Your task to perform on an android device: read, delete, or share a saved page in the chrome app Image 0: 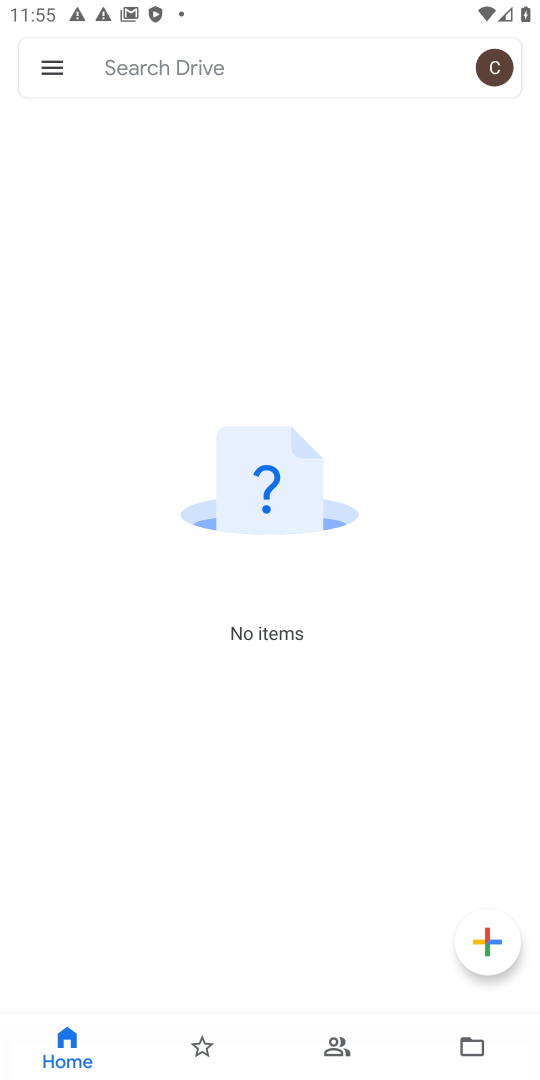
Step 0: press home button
Your task to perform on an android device: read, delete, or share a saved page in the chrome app Image 1: 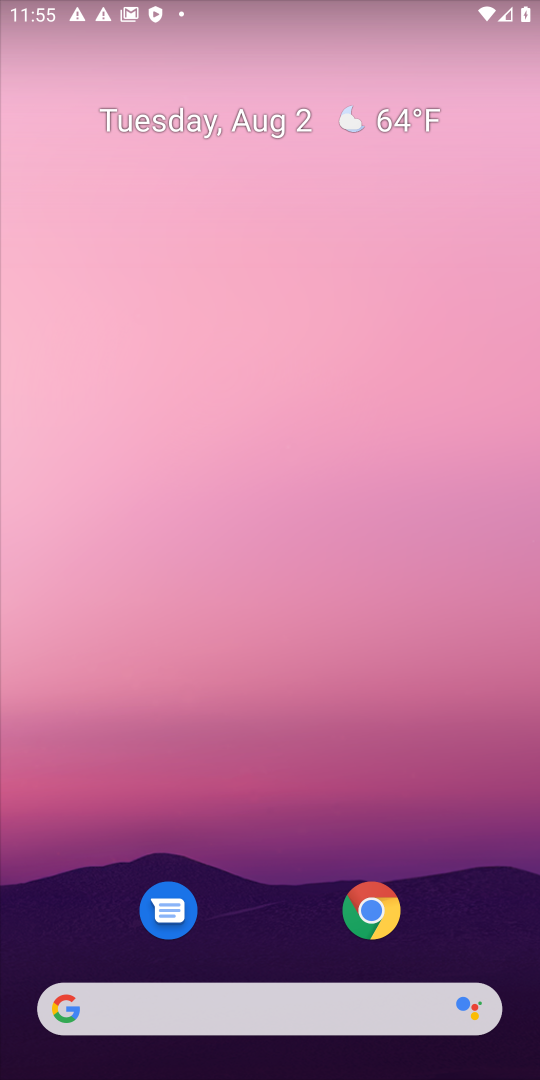
Step 1: click (372, 914)
Your task to perform on an android device: read, delete, or share a saved page in the chrome app Image 2: 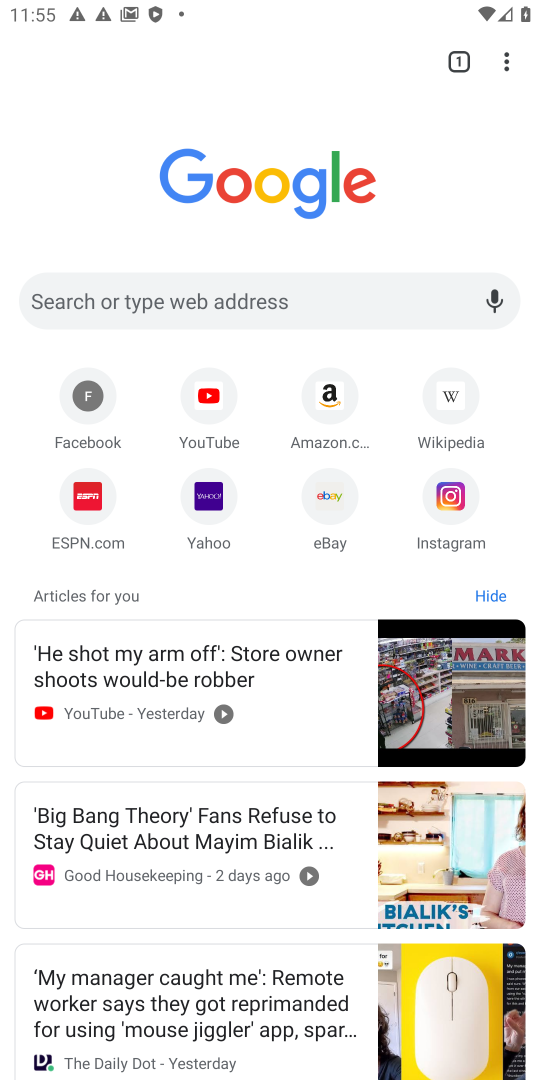
Step 2: drag from (508, 64) to (320, 403)
Your task to perform on an android device: read, delete, or share a saved page in the chrome app Image 3: 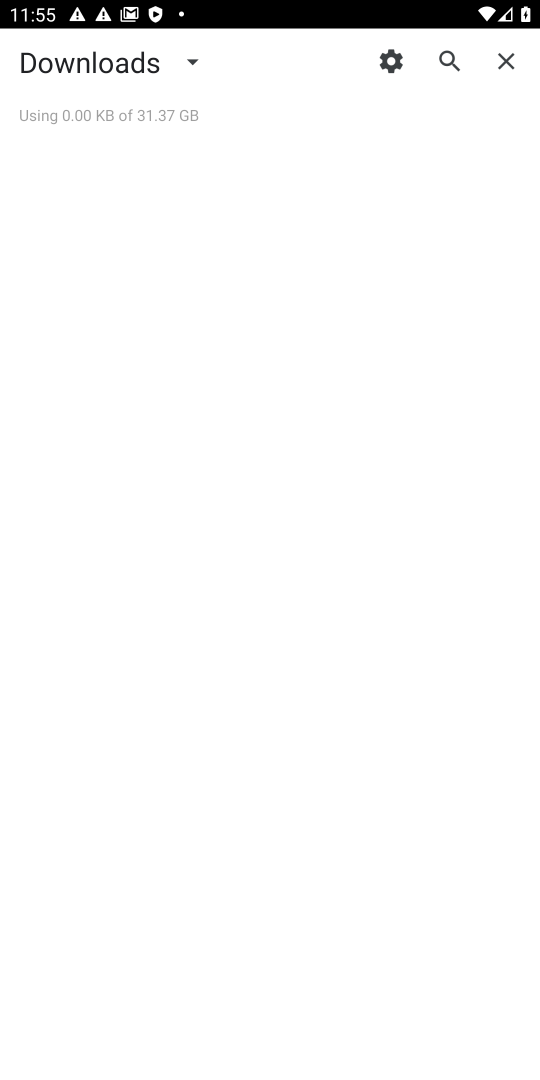
Step 3: click (196, 70)
Your task to perform on an android device: read, delete, or share a saved page in the chrome app Image 4: 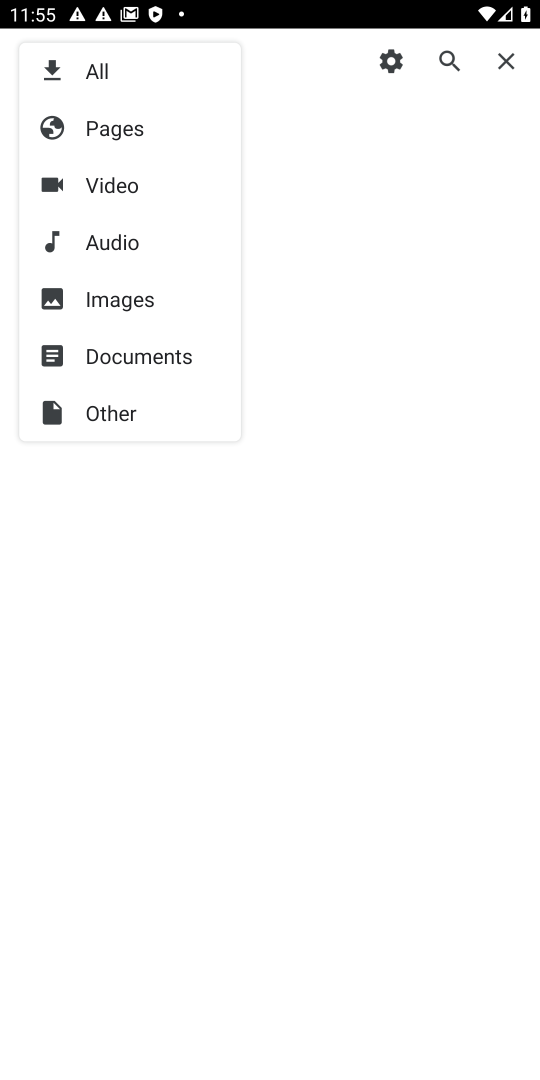
Step 4: click (147, 129)
Your task to perform on an android device: read, delete, or share a saved page in the chrome app Image 5: 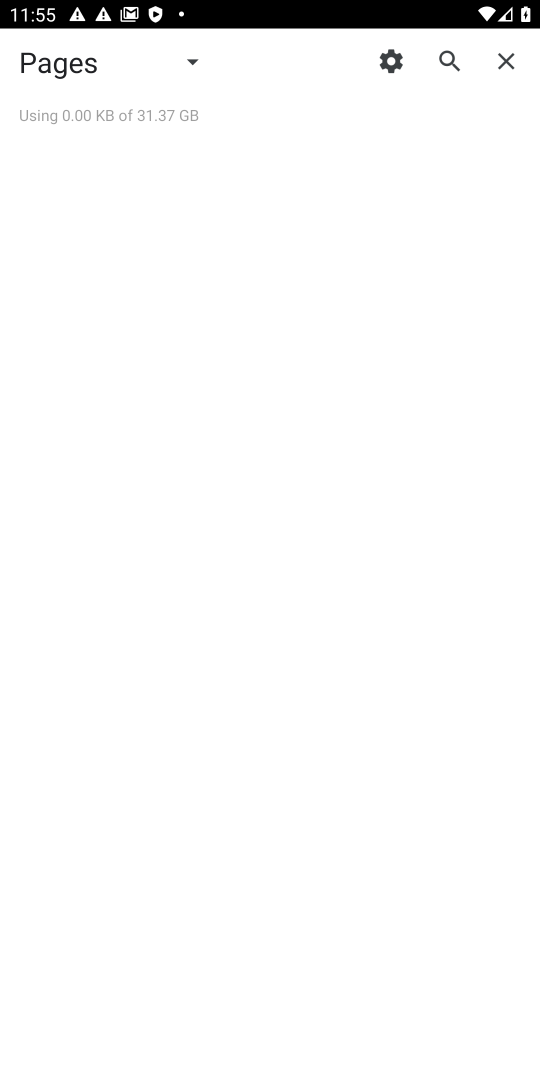
Step 5: task complete